Your task to perform on an android device: toggle improve location accuracy Image 0: 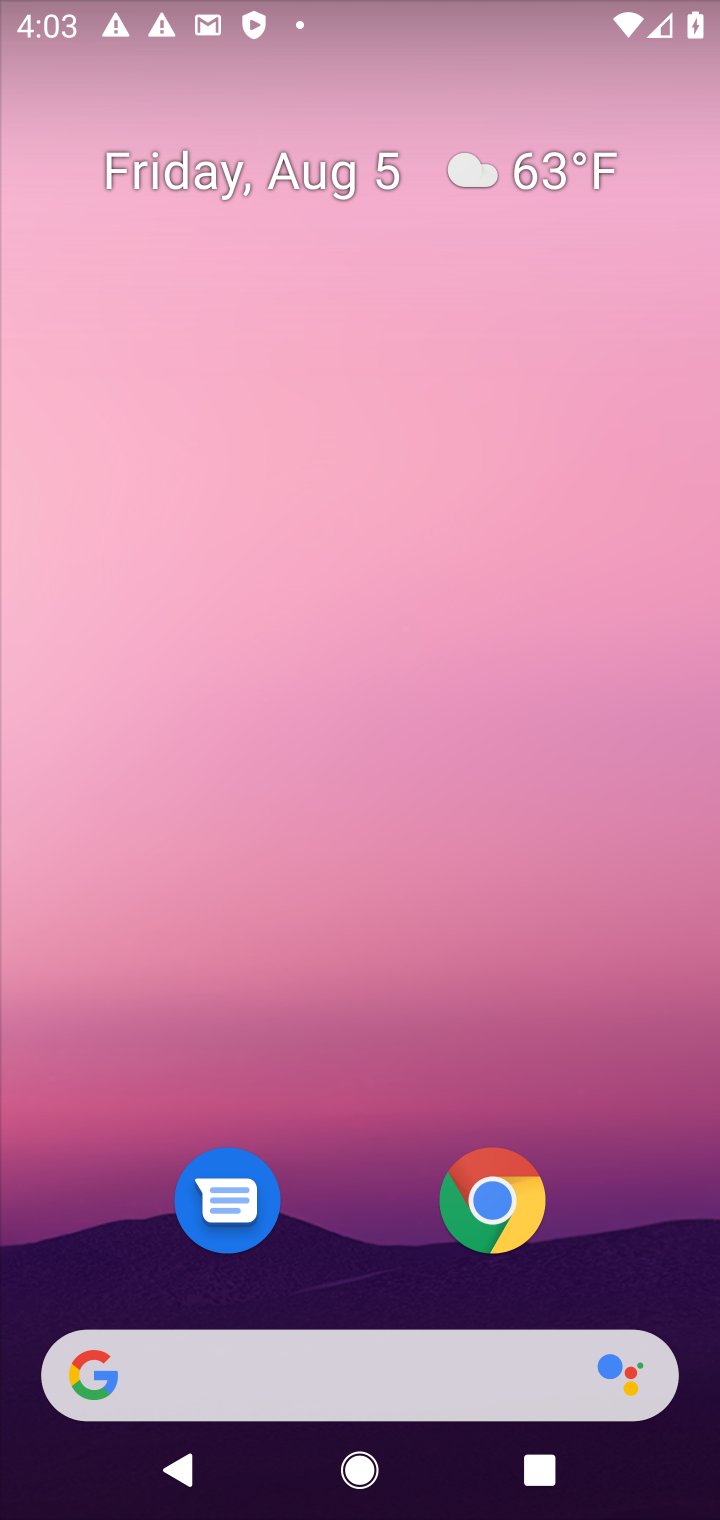
Step 0: drag from (642, 1240) to (356, 298)
Your task to perform on an android device: toggle improve location accuracy Image 1: 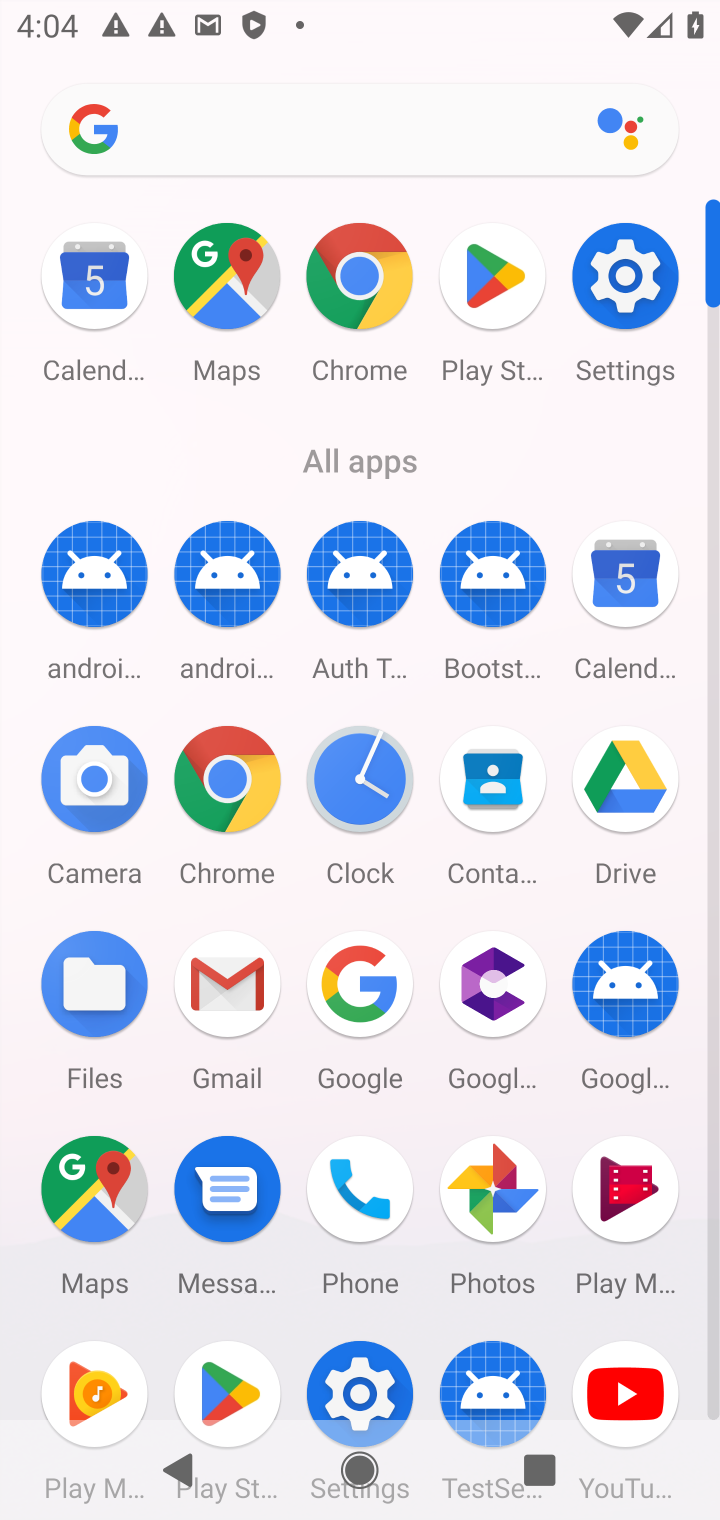
Step 1: click (646, 276)
Your task to perform on an android device: toggle improve location accuracy Image 2: 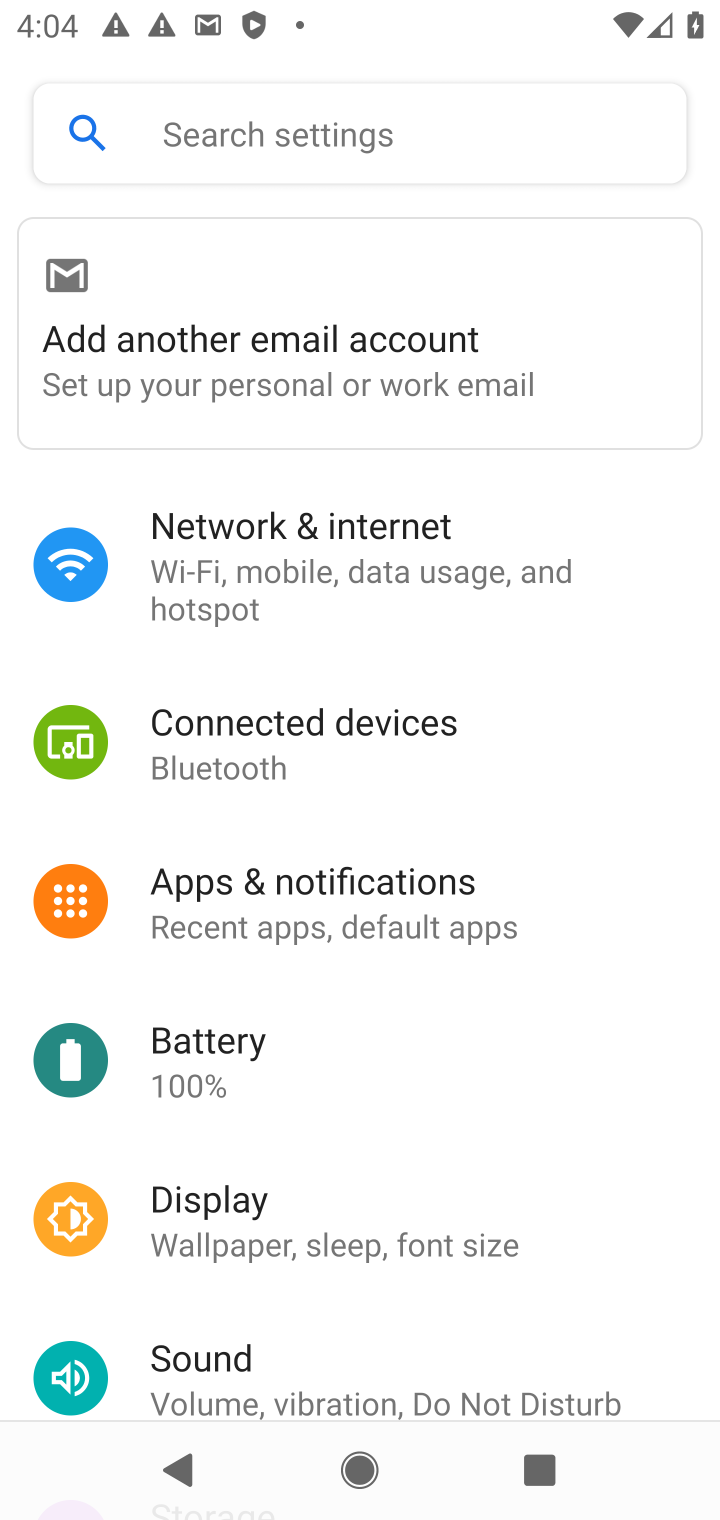
Step 2: drag from (338, 1355) to (308, 454)
Your task to perform on an android device: toggle improve location accuracy Image 3: 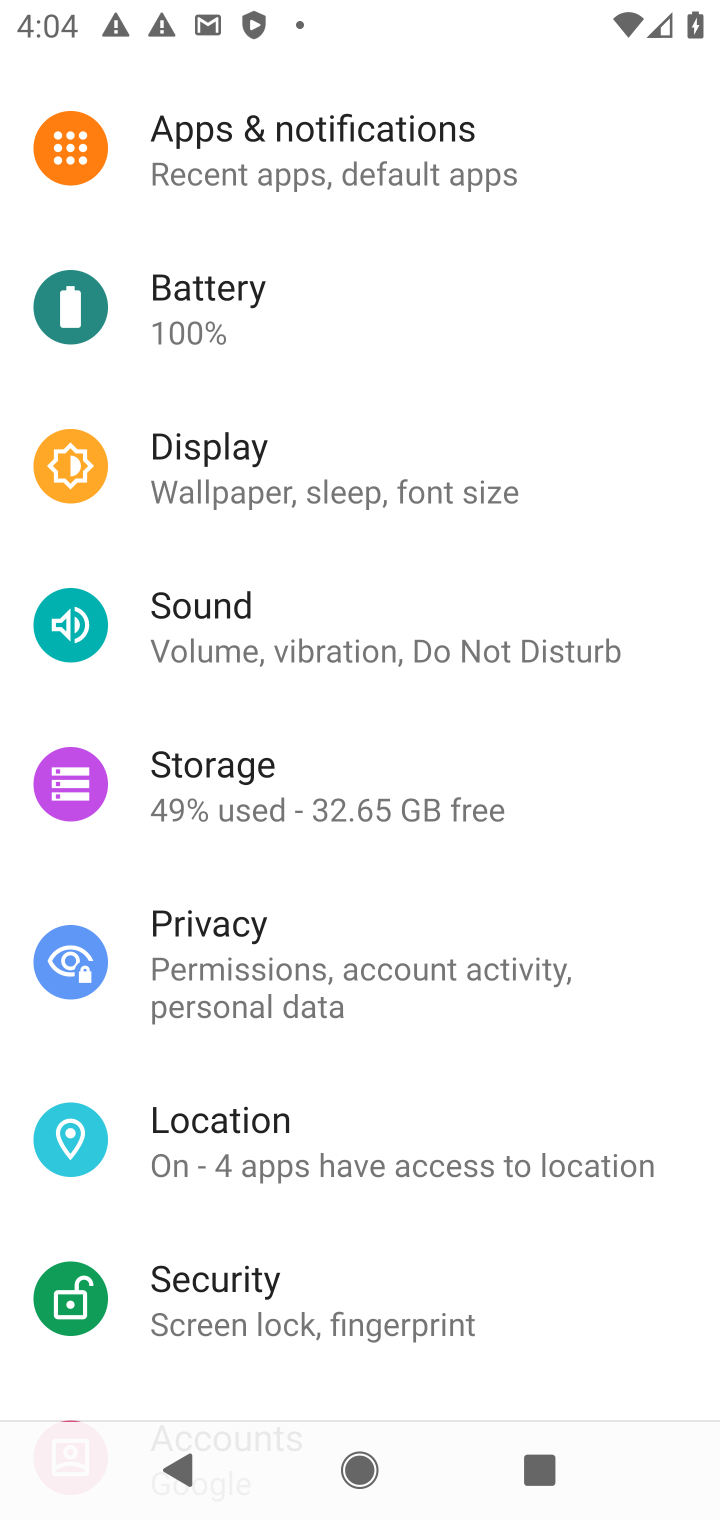
Step 3: click (347, 1188)
Your task to perform on an android device: toggle improve location accuracy Image 4: 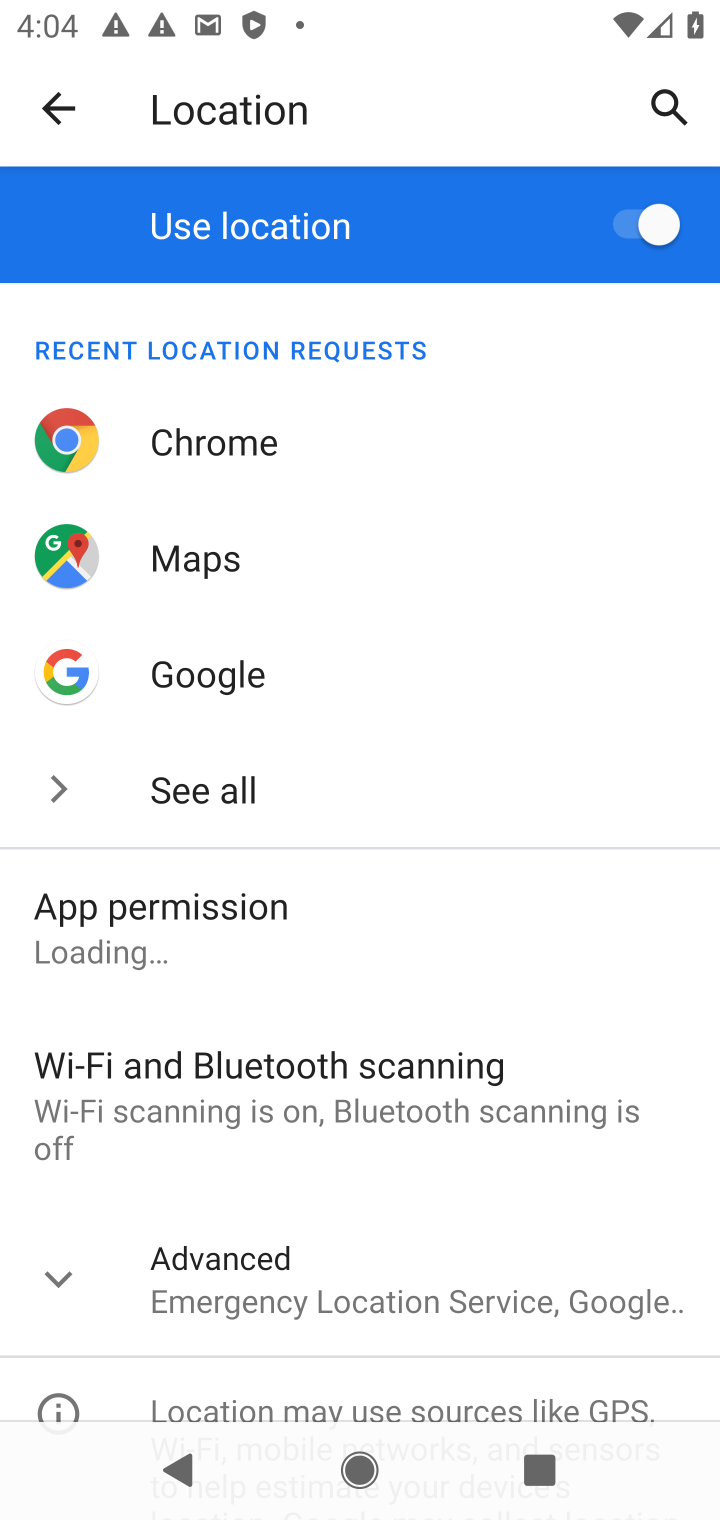
Step 4: drag from (476, 1203) to (437, 431)
Your task to perform on an android device: toggle improve location accuracy Image 5: 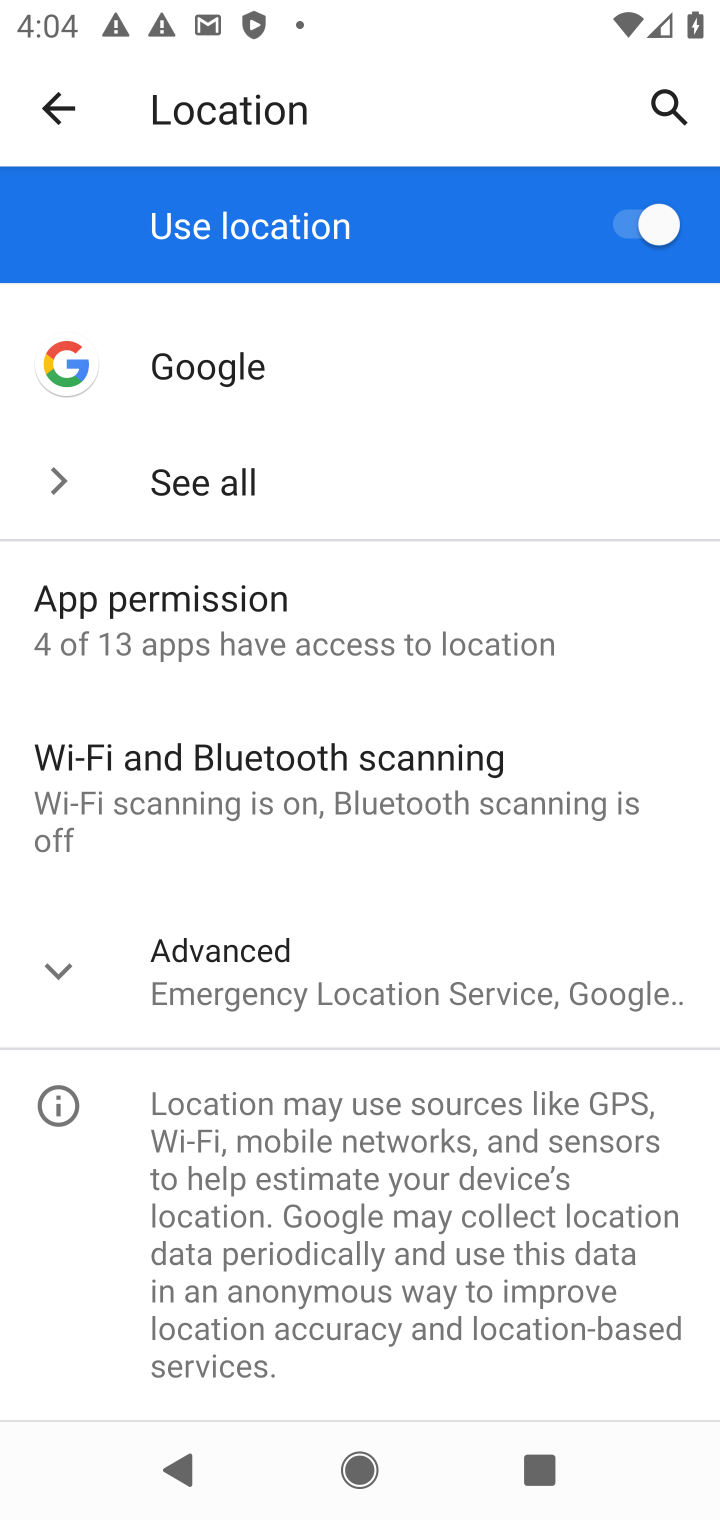
Step 5: click (411, 986)
Your task to perform on an android device: toggle improve location accuracy Image 6: 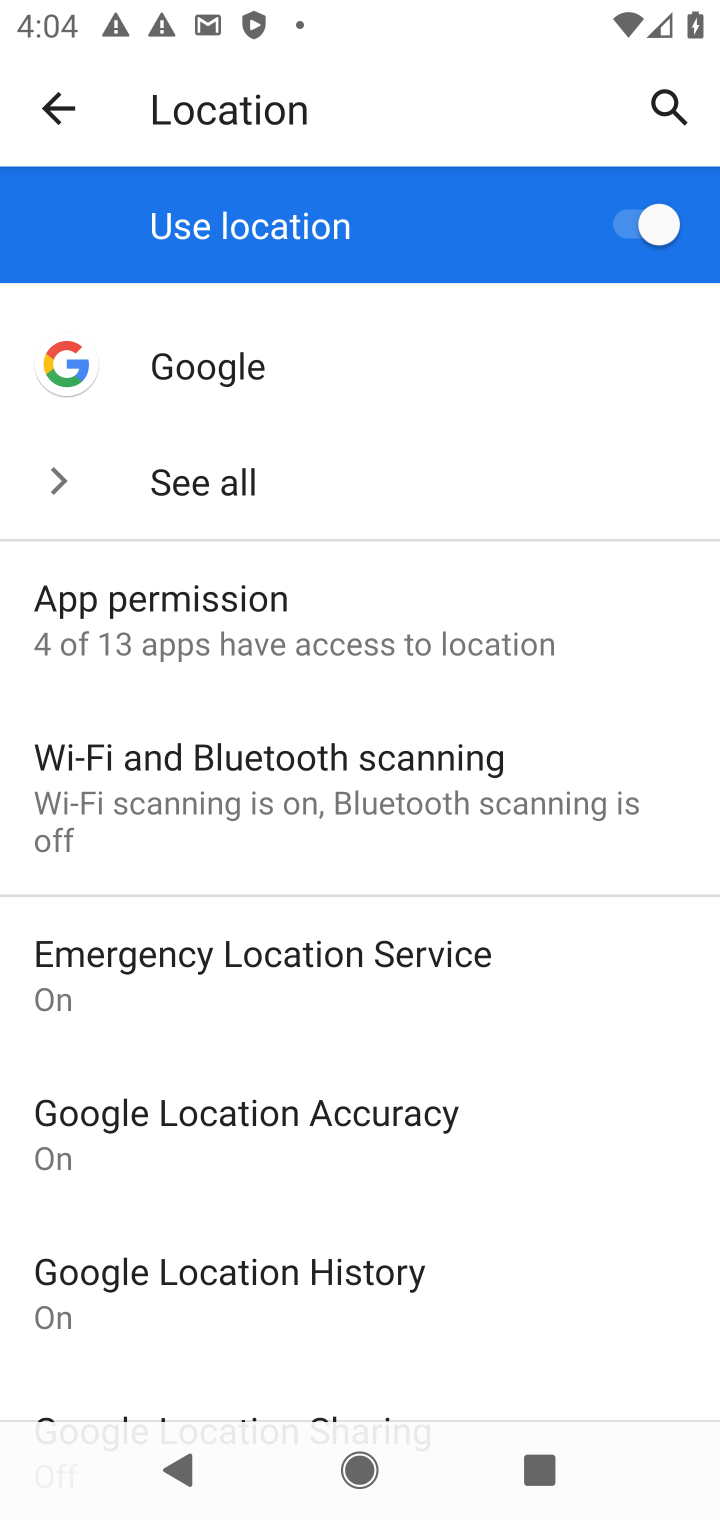
Step 6: click (452, 1136)
Your task to perform on an android device: toggle improve location accuracy Image 7: 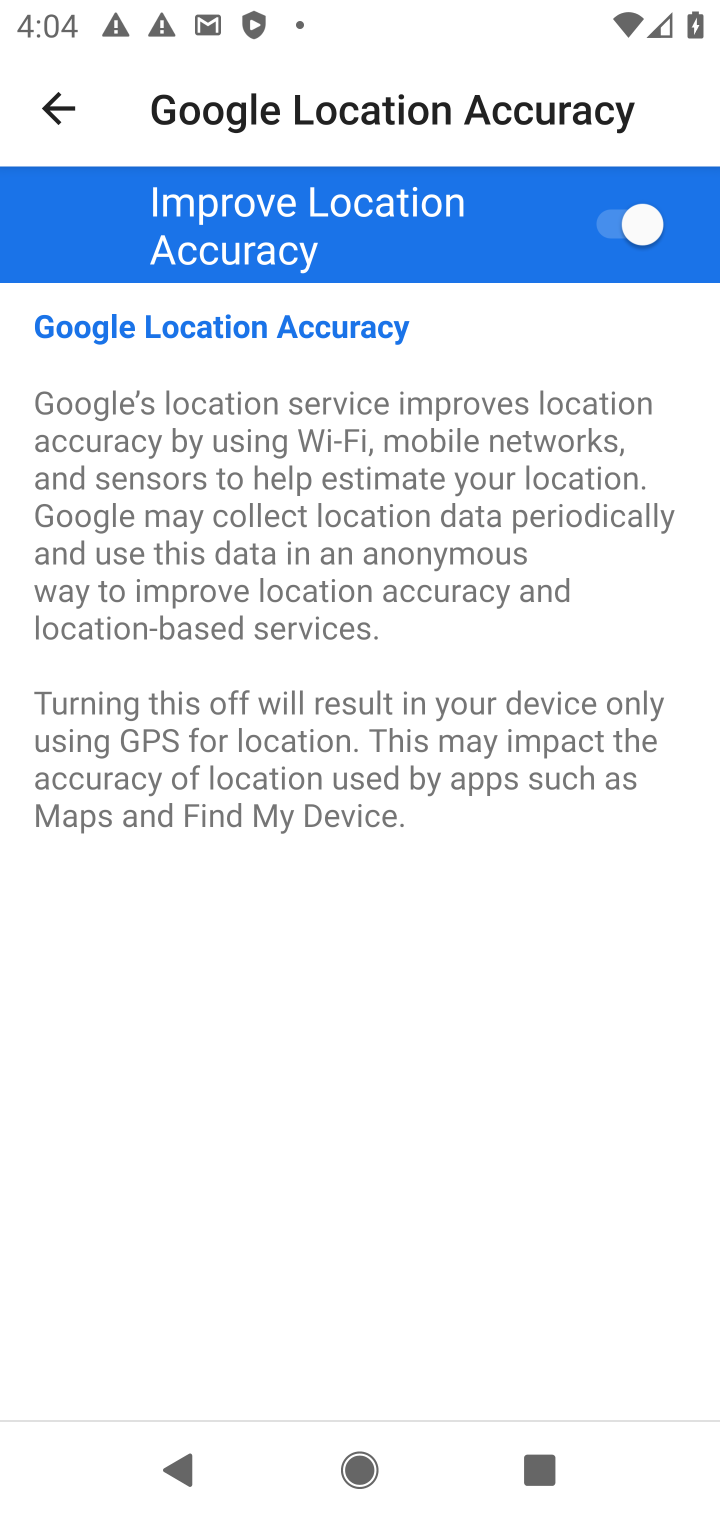
Step 7: click (598, 241)
Your task to perform on an android device: toggle improve location accuracy Image 8: 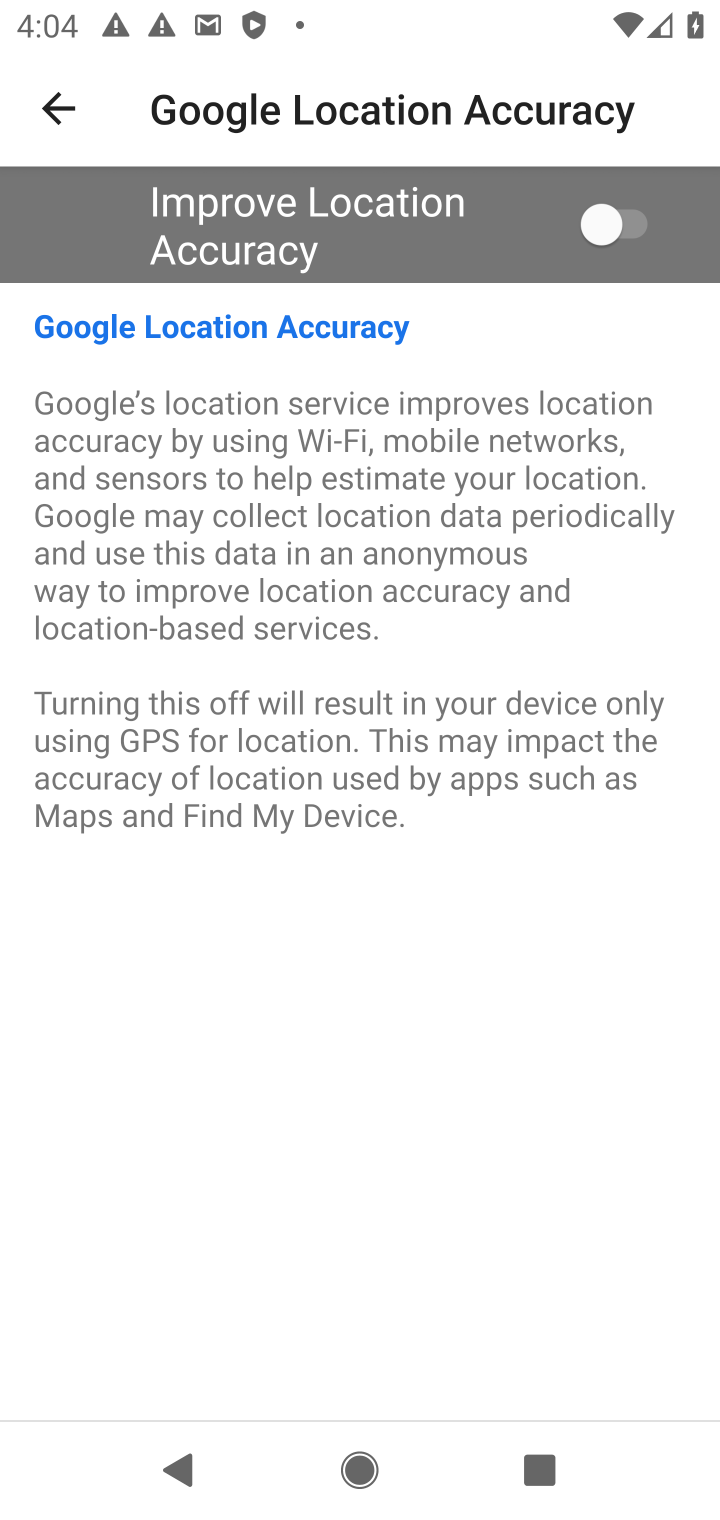
Step 8: task complete